Your task to perform on an android device: open sync settings in chrome Image 0: 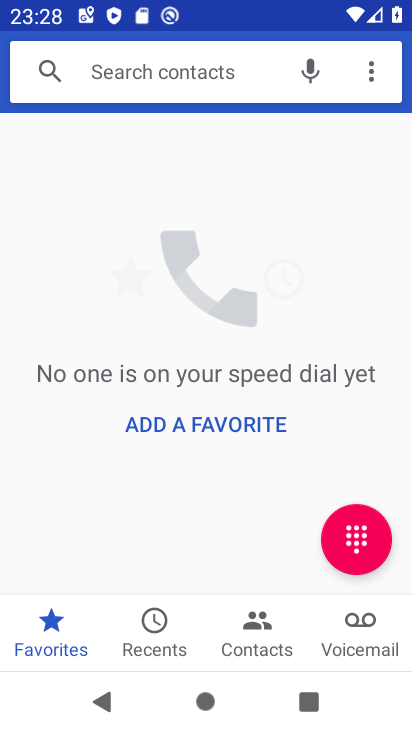
Step 0: press home button
Your task to perform on an android device: open sync settings in chrome Image 1: 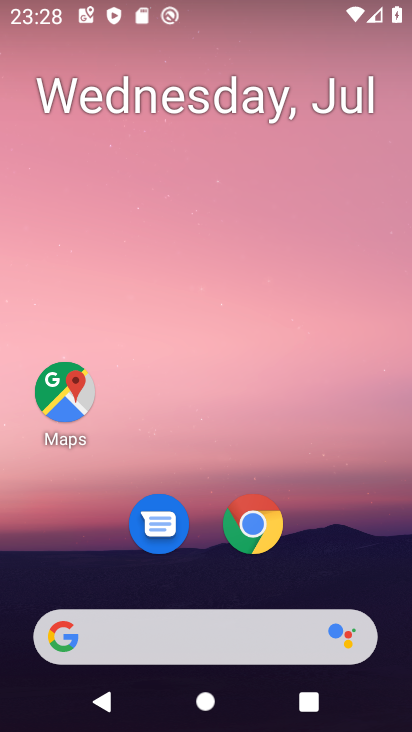
Step 1: click (257, 530)
Your task to perform on an android device: open sync settings in chrome Image 2: 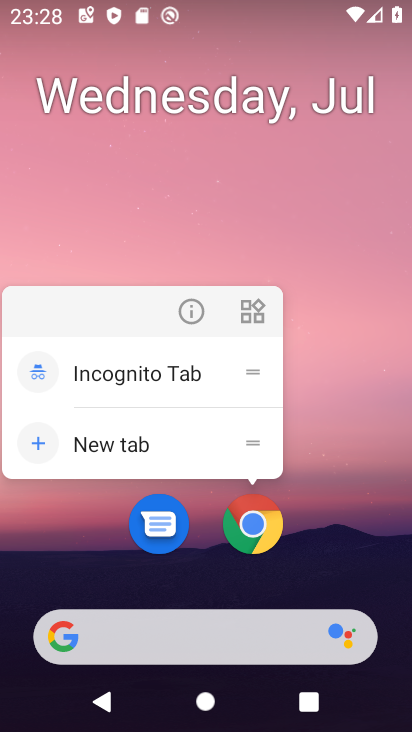
Step 2: click (257, 530)
Your task to perform on an android device: open sync settings in chrome Image 3: 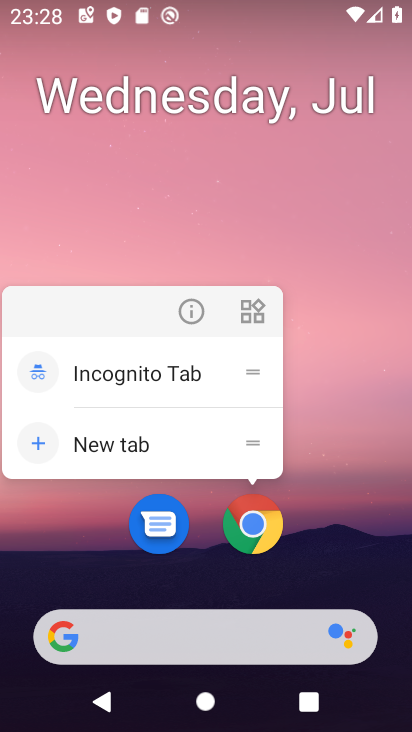
Step 3: click (257, 532)
Your task to perform on an android device: open sync settings in chrome Image 4: 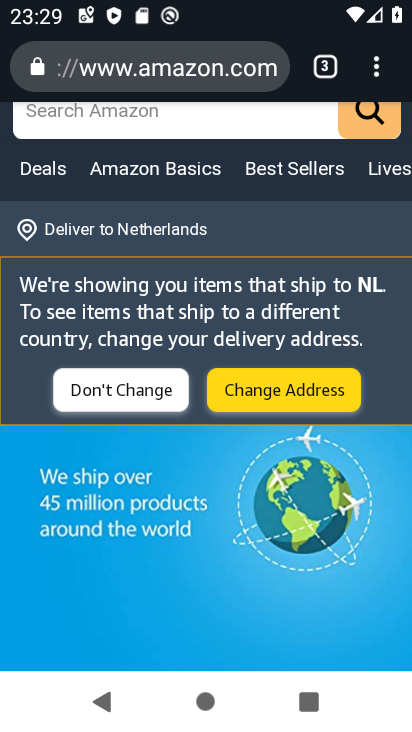
Step 4: drag from (373, 59) to (236, 538)
Your task to perform on an android device: open sync settings in chrome Image 5: 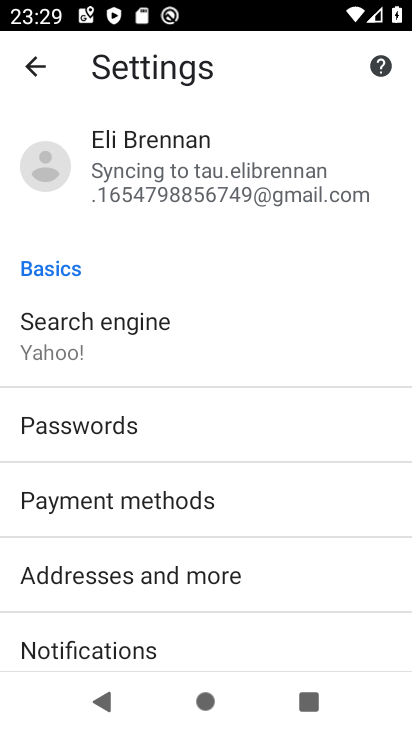
Step 5: drag from (210, 618) to (279, 670)
Your task to perform on an android device: open sync settings in chrome Image 6: 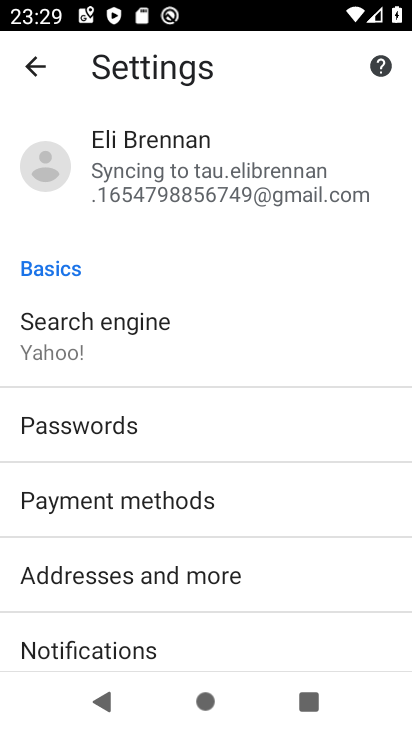
Step 6: click (199, 204)
Your task to perform on an android device: open sync settings in chrome Image 7: 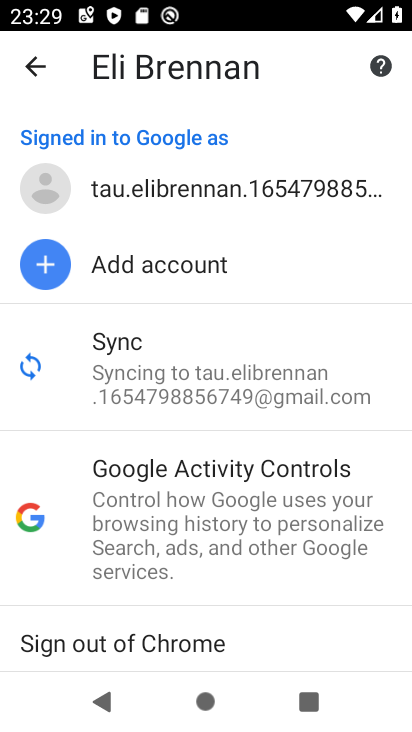
Step 7: click (243, 349)
Your task to perform on an android device: open sync settings in chrome Image 8: 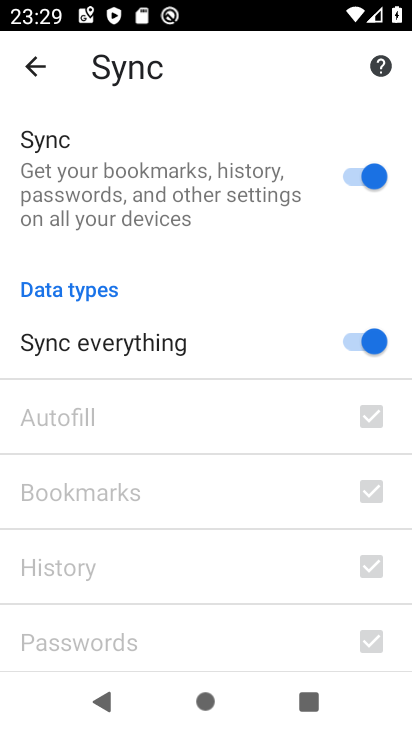
Step 8: task complete